Your task to perform on an android device: toggle notifications settings in the gmail app Image 0: 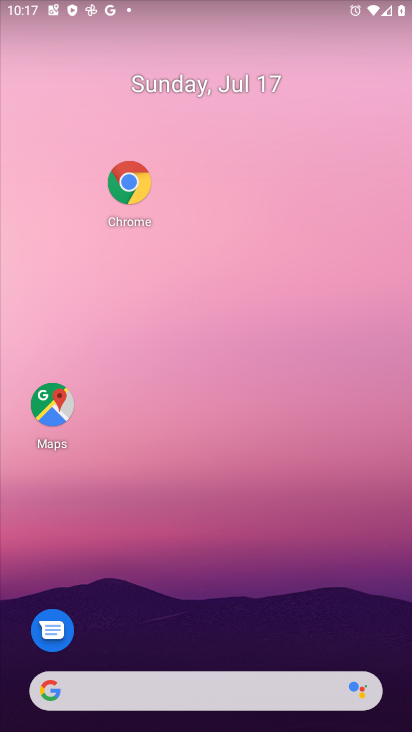
Step 0: drag from (208, 387) to (208, 287)
Your task to perform on an android device: toggle notifications settings in the gmail app Image 1: 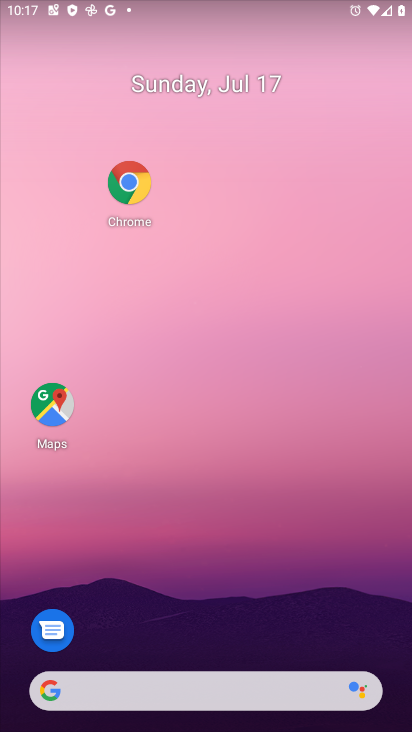
Step 1: drag from (155, 635) to (253, 30)
Your task to perform on an android device: toggle notifications settings in the gmail app Image 2: 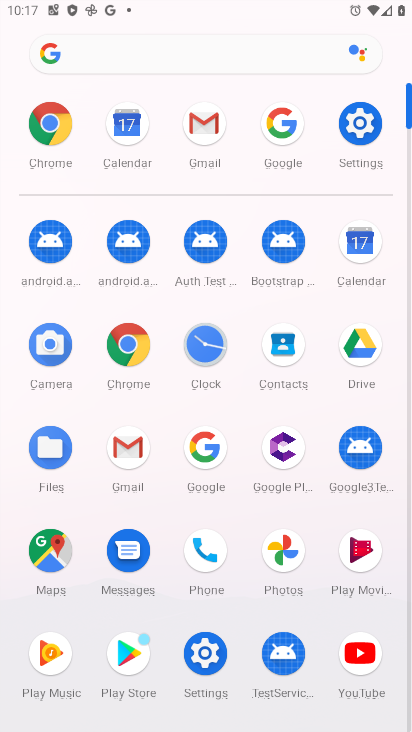
Step 2: click (201, 125)
Your task to perform on an android device: toggle notifications settings in the gmail app Image 3: 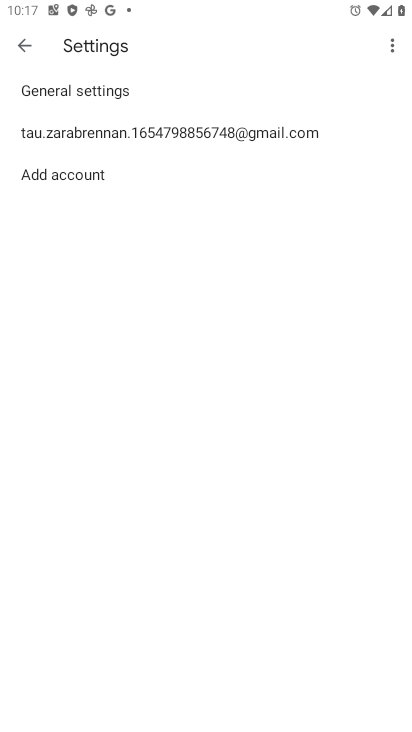
Step 3: click (174, 132)
Your task to perform on an android device: toggle notifications settings in the gmail app Image 4: 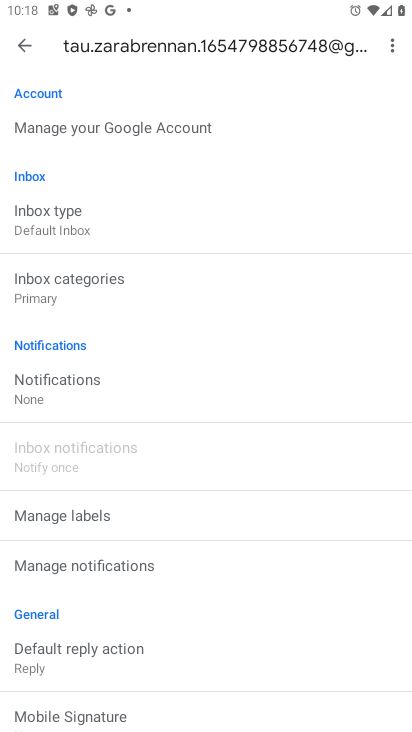
Step 4: click (118, 561)
Your task to perform on an android device: toggle notifications settings in the gmail app Image 5: 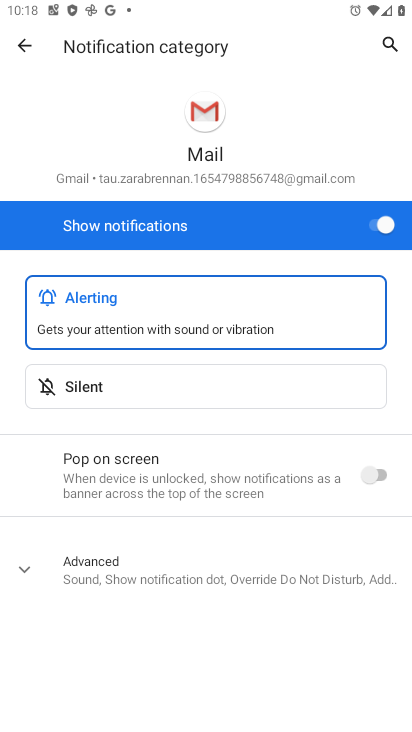
Step 5: click (377, 220)
Your task to perform on an android device: toggle notifications settings in the gmail app Image 6: 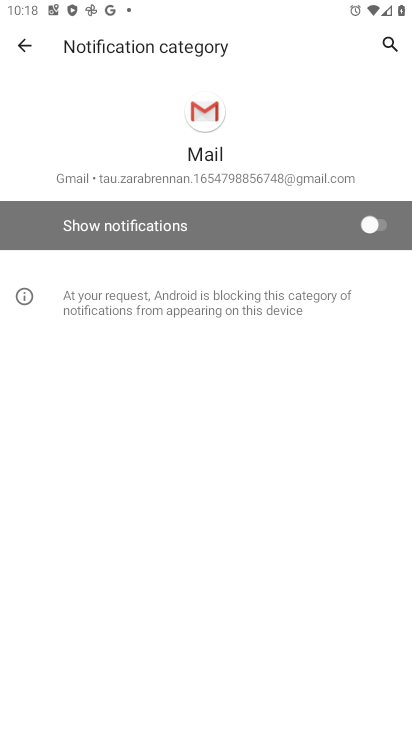
Step 6: task complete